Your task to perform on an android device: empty trash in the gmail app Image 0: 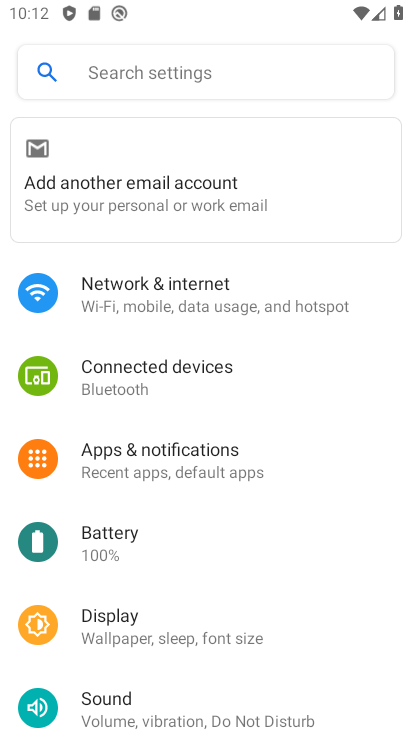
Step 0: press home button
Your task to perform on an android device: empty trash in the gmail app Image 1: 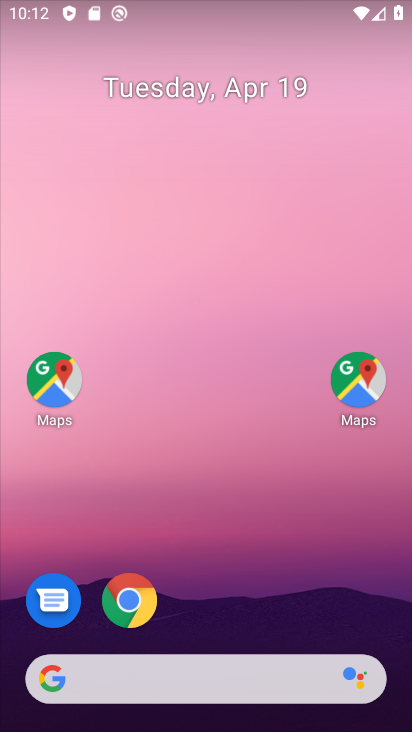
Step 1: drag from (270, 658) to (284, 50)
Your task to perform on an android device: empty trash in the gmail app Image 2: 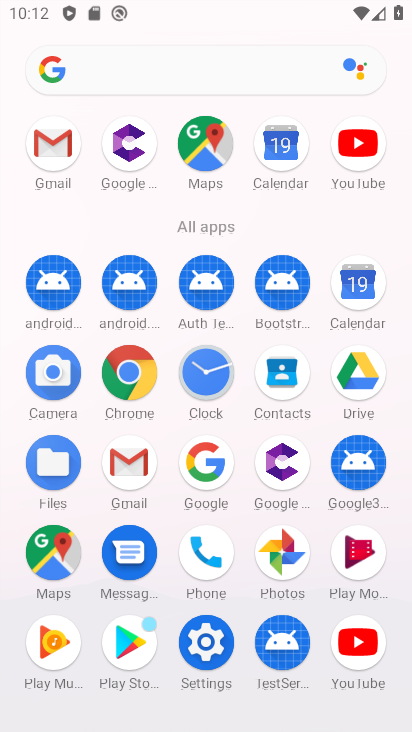
Step 2: click (127, 472)
Your task to perform on an android device: empty trash in the gmail app Image 3: 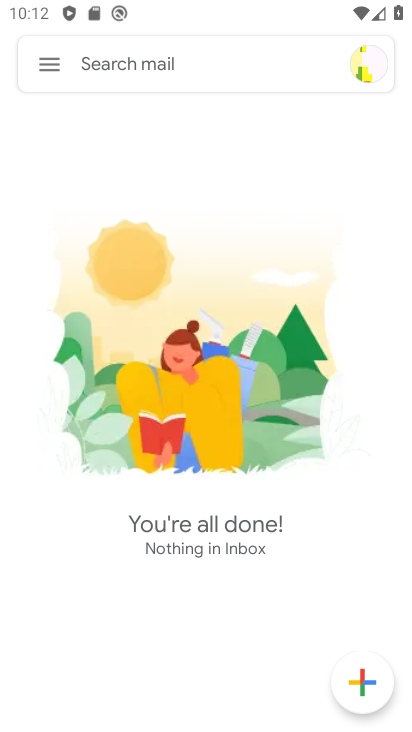
Step 3: click (61, 63)
Your task to perform on an android device: empty trash in the gmail app Image 4: 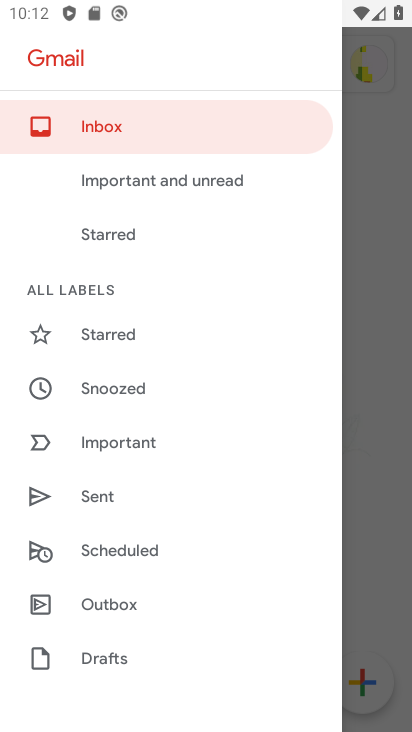
Step 4: drag from (158, 644) to (198, 268)
Your task to perform on an android device: empty trash in the gmail app Image 5: 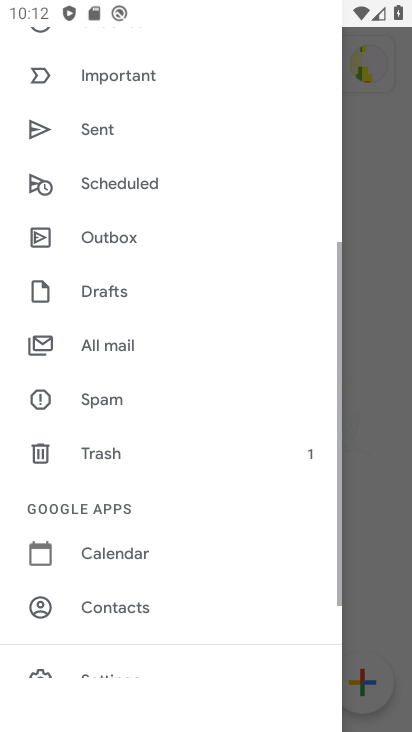
Step 5: drag from (150, 543) to (206, 173)
Your task to perform on an android device: empty trash in the gmail app Image 6: 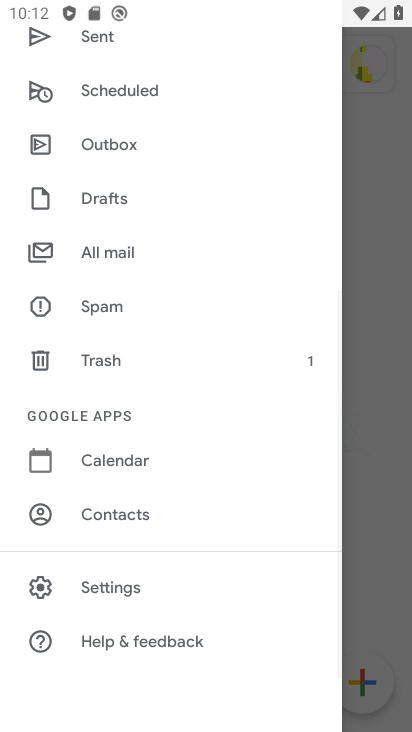
Step 6: click (94, 366)
Your task to perform on an android device: empty trash in the gmail app Image 7: 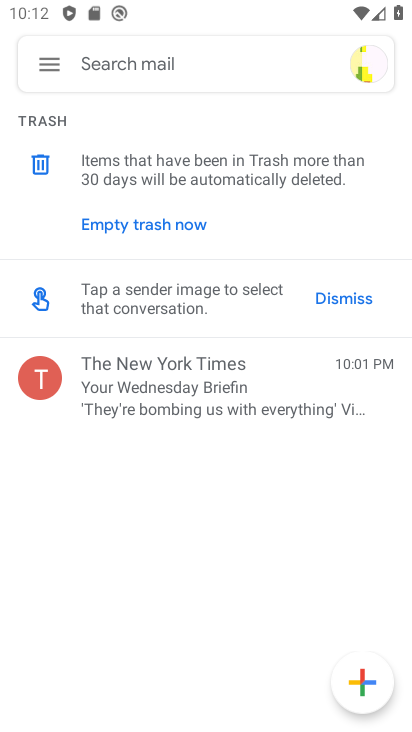
Step 7: click (158, 231)
Your task to perform on an android device: empty trash in the gmail app Image 8: 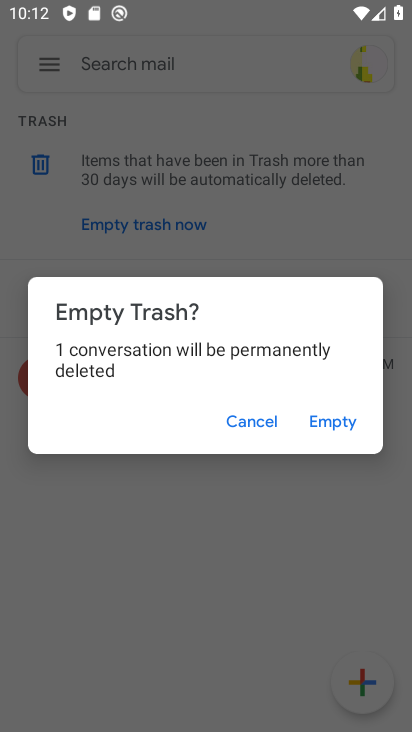
Step 8: click (329, 425)
Your task to perform on an android device: empty trash in the gmail app Image 9: 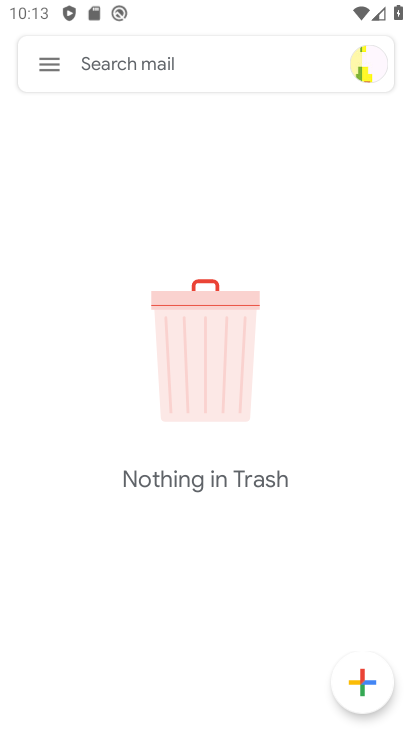
Step 9: task complete